Your task to perform on an android device: show emergency info Image 0: 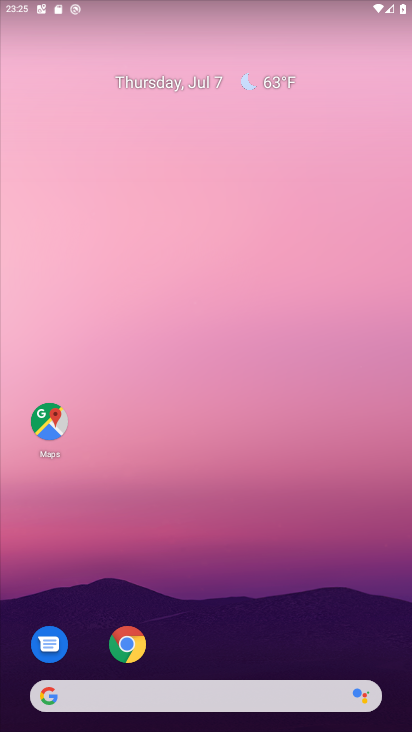
Step 0: drag from (205, 710) to (205, 546)
Your task to perform on an android device: show emergency info Image 1: 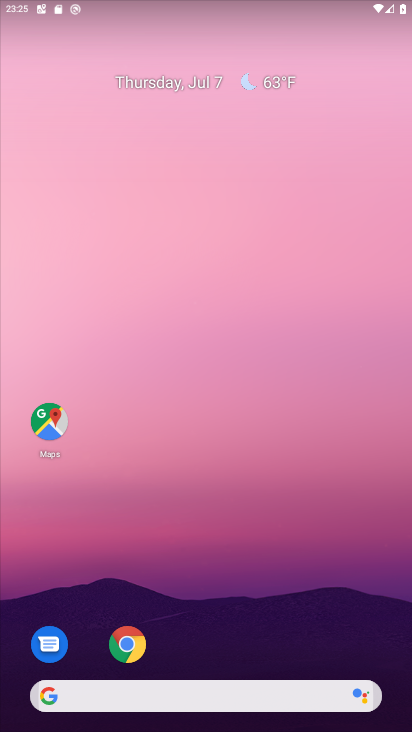
Step 1: drag from (204, 227) to (202, 152)
Your task to perform on an android device: show emergency info Image 2: 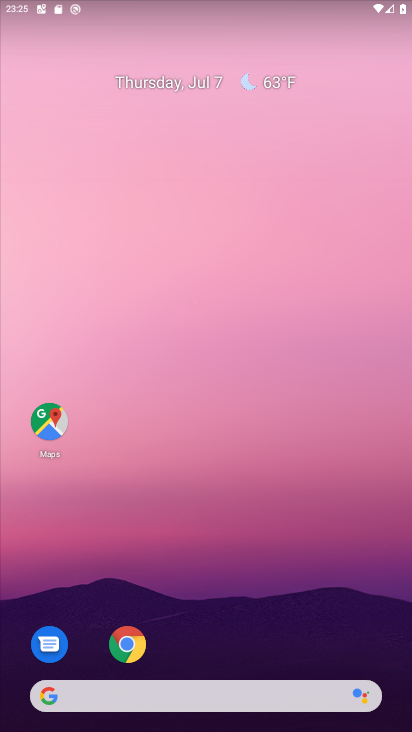
Step 2: drag from (268, 720) to (276, 53)
Your task to perform on an android device: show emergency info Image 3: 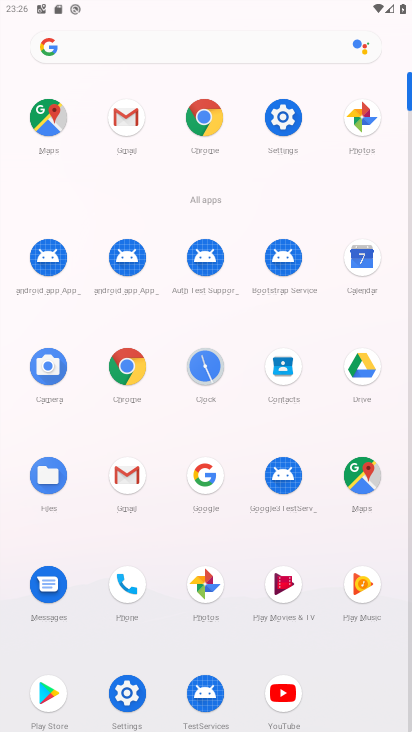
Step 3: click (119, 689)
Your task to perform on an android device: show emergency info Image 4: 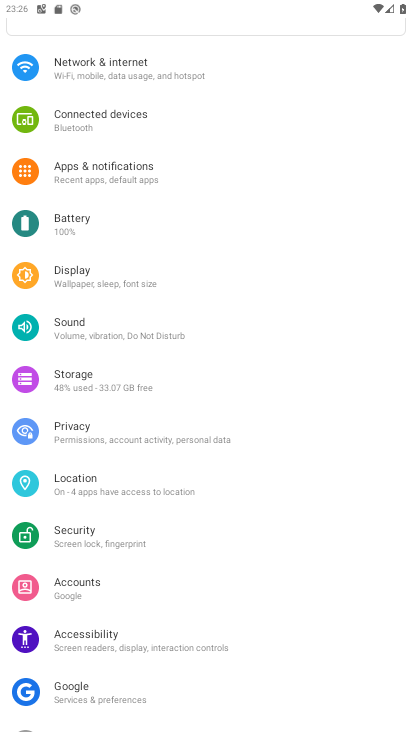
Step 4: drag from (211, 719) to (208, 233)
Your task to perform on an android device: show emergency info Image 5: 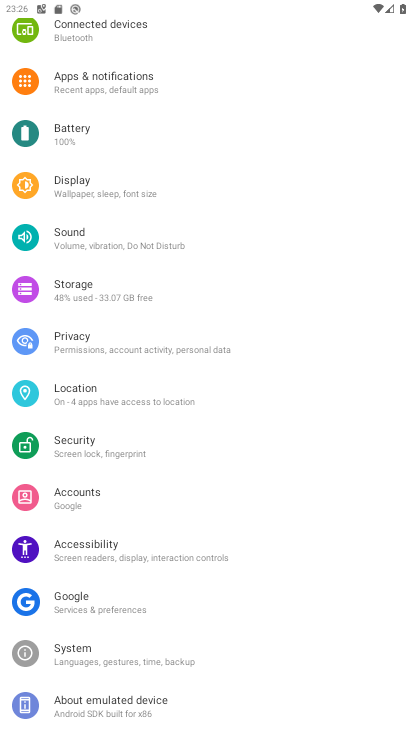
Step 5: click (124, 706)
Your task to perform on an android device: show emergency info Image 6: 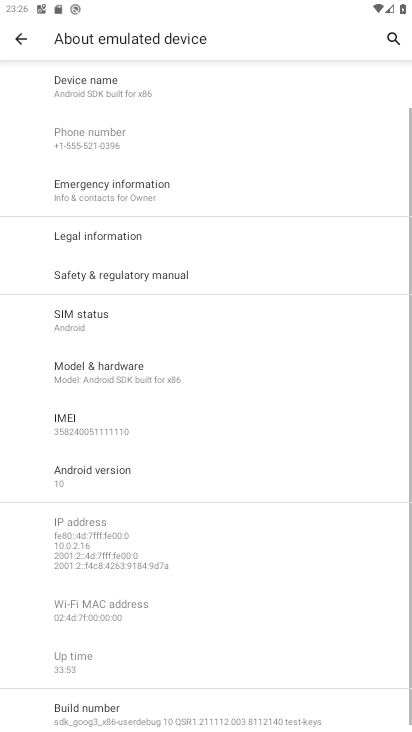
Step 6: click (111, 198)
Your task to perform on an android device: show emergency info Image 7: 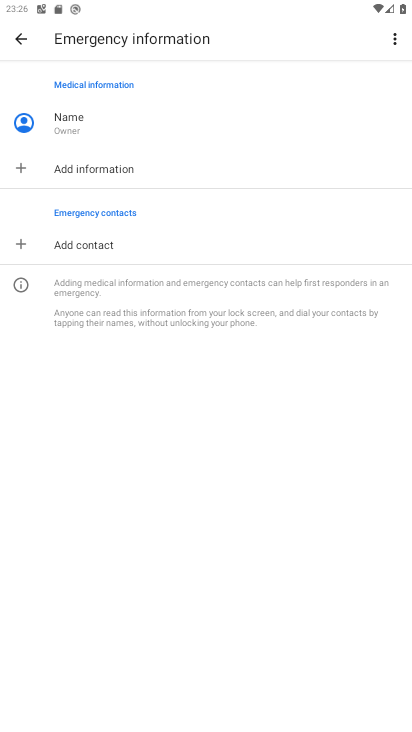
Step 7: task complete